Your task to perform on an android device: delete location history Image 0: 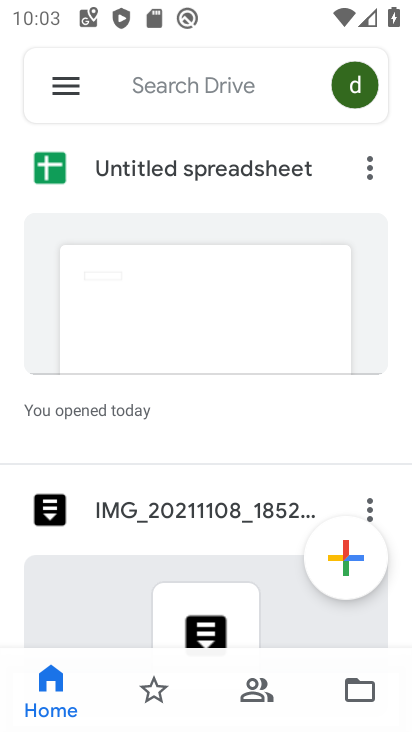
Step 0: press home button
Your task to perform on an android device: delete location history Image 1: 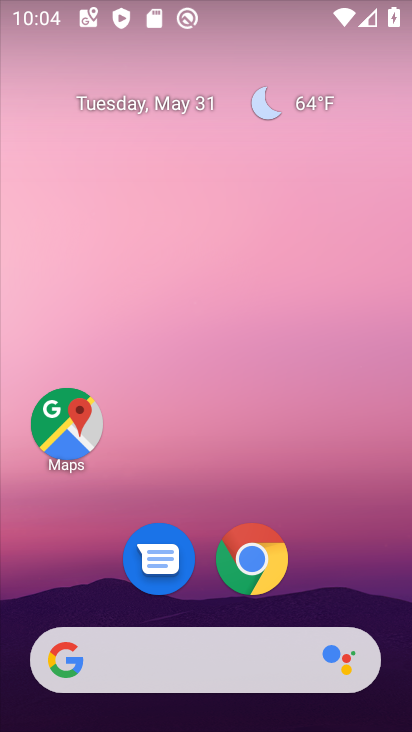
Step 1: drag from (275, 610) to (367, 47)
Your task to perform on an android device: delete location history Image 2: 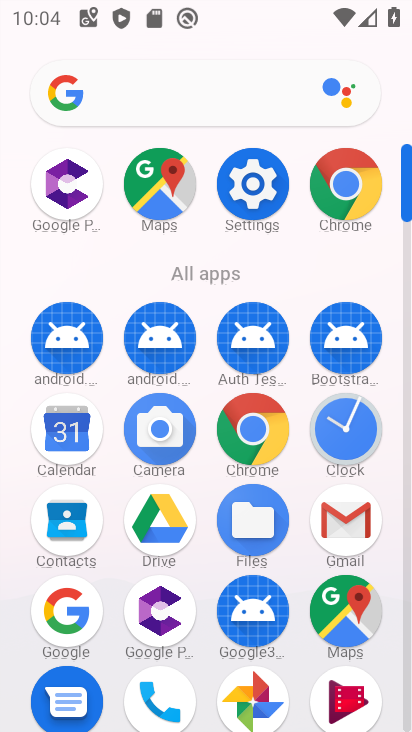
Step 2: drag from (193, 607) to (227, 256)
Your task to perform on an android device: delete location history Image 3: 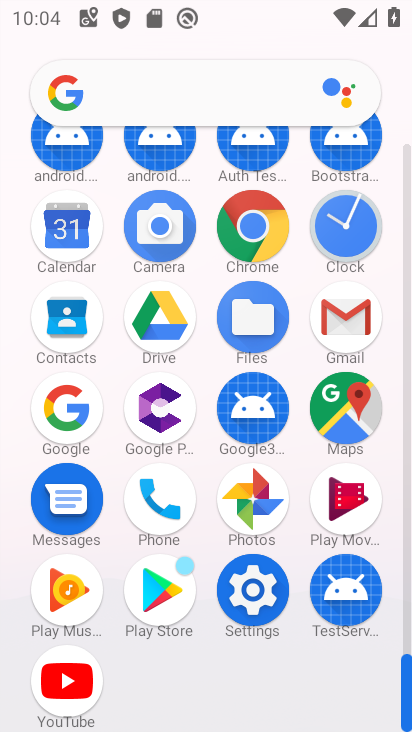
Step 3: click (241, 593)
Your task to perform on an android device: delete location history Image 4: 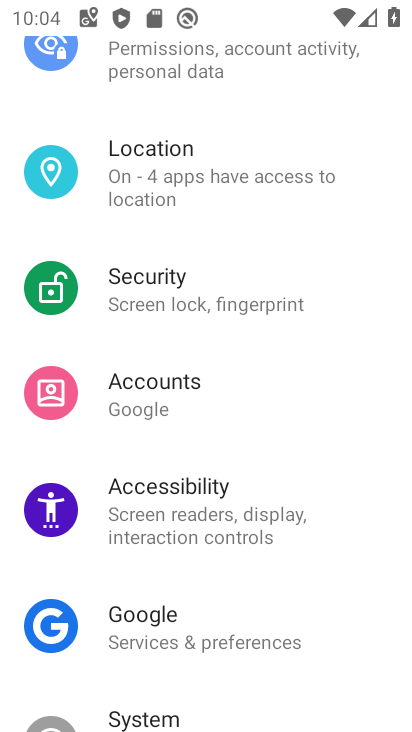
Step 4: click (284, 210)
Your task to perform on an android device: delete location history Image 5: 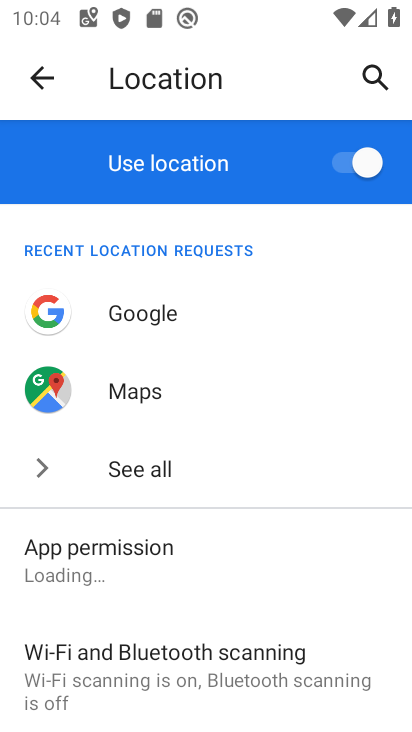
Step 5: drag from (174, 610) to (302, 207)
Your task to perform on an android device: delete location history Image 6: 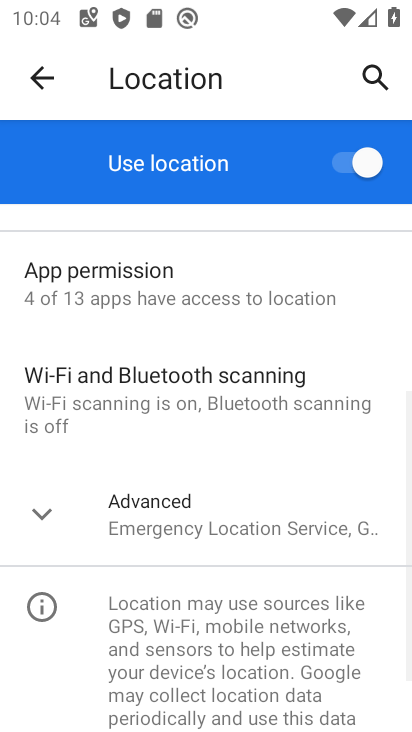
Step 6: click (214, 603)
Your task to perform on an android device: delete location history Image 7: 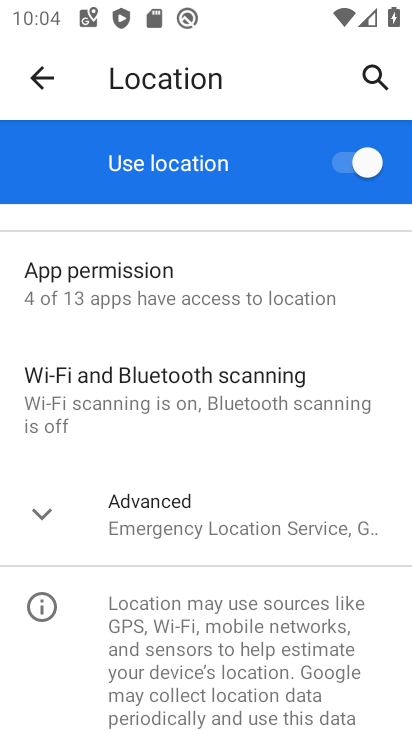
Step 7: click (210, 508)
Your task to perform on an android device: delete location history Image 8: 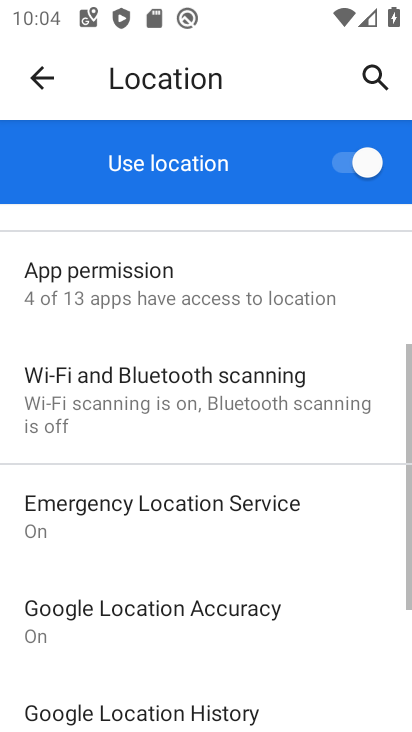
Step 8: drag from (198, 654) to (267, 372)
Your task to perform on an android device: delete location history Image 9: 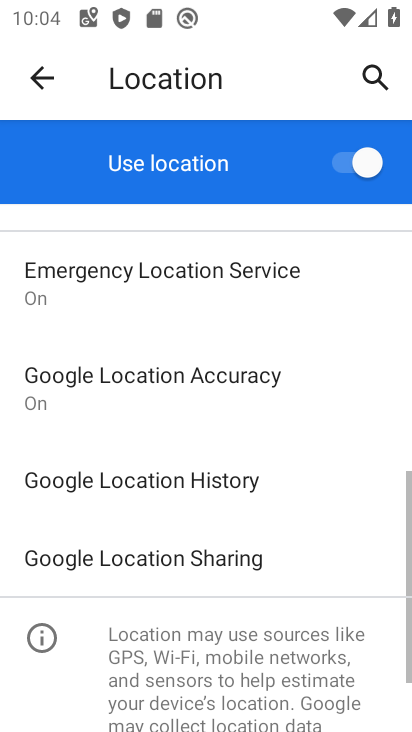
Step 9: click (196, 474)
Your task to perform on an android device: delete location history Image 10: 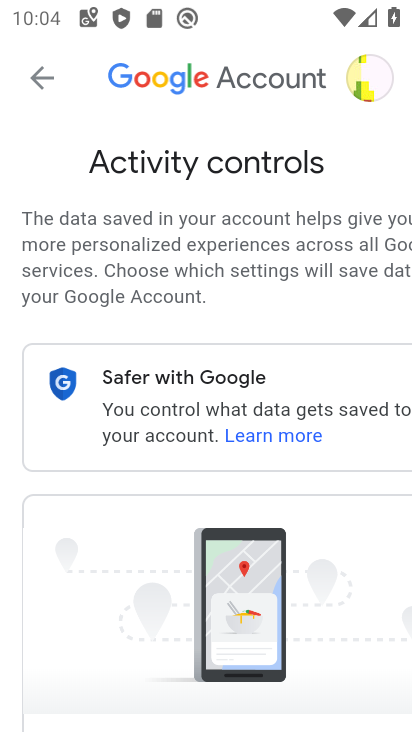
Step 10: drag from (183, 665) to (392, 154)
Your task to perform on an android device: delete location history Image 11: 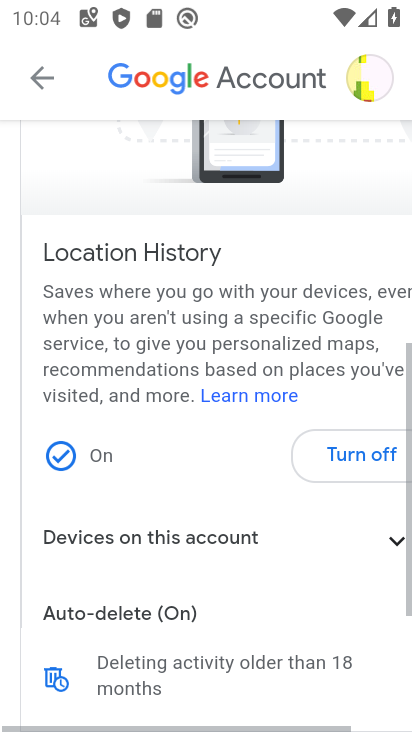
Step 11: drag from (270, 644) to (351, 310)
Your task to perform on an android device: delete location history Image 12: 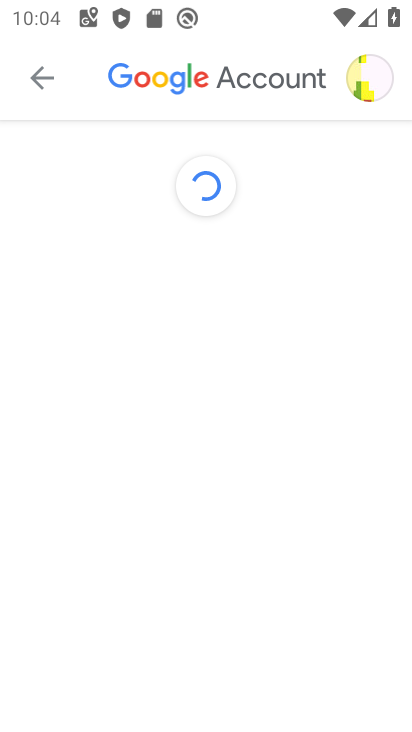
Step 12: drag from (314, 564) to (168, 576)
Your task to perform on an android device: delete location history Image 13: 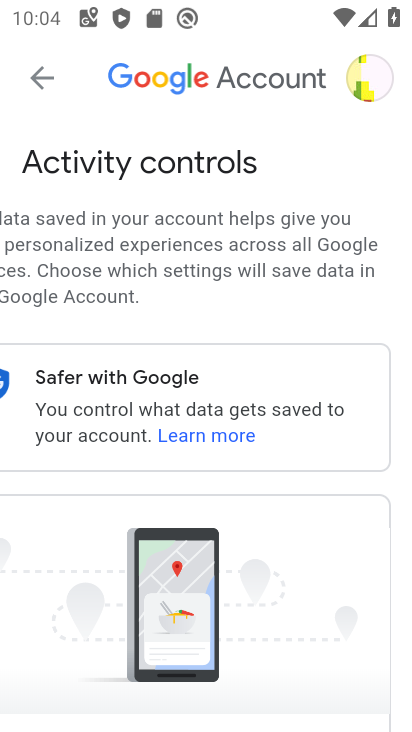
Step 13: drag from (182, 631) to (384, 77)
Your task to perform on an android device: delete location history Image 14: 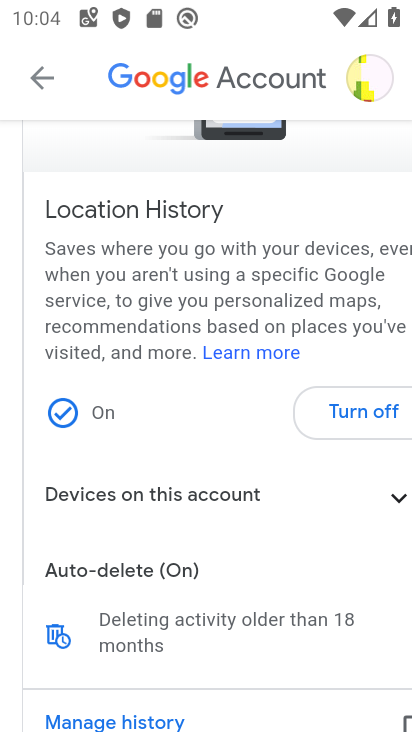
Step 14: drag from (200, 621) to (313, 174)
Your task to perform on an android device: delete location history Image 15: 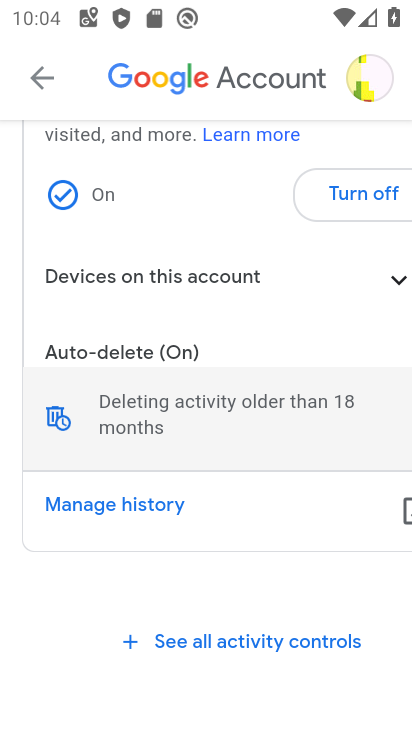
Step 15: click (140, 499)
Your task to perform on an android device: delete location history Image 16: 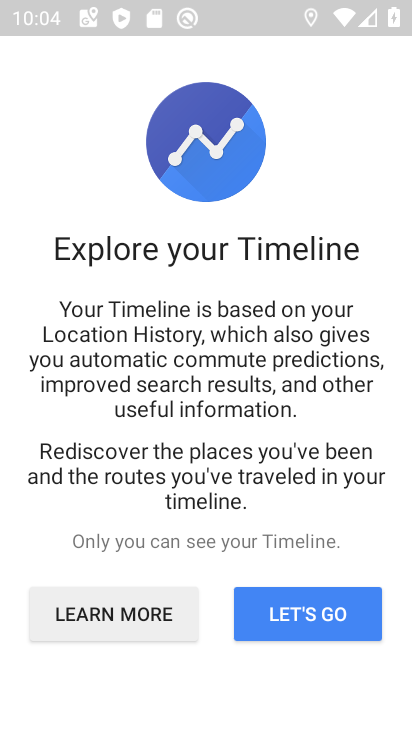
Step 16: click (301, 626)
Your task to perform on an android device: delete location history Image 17: 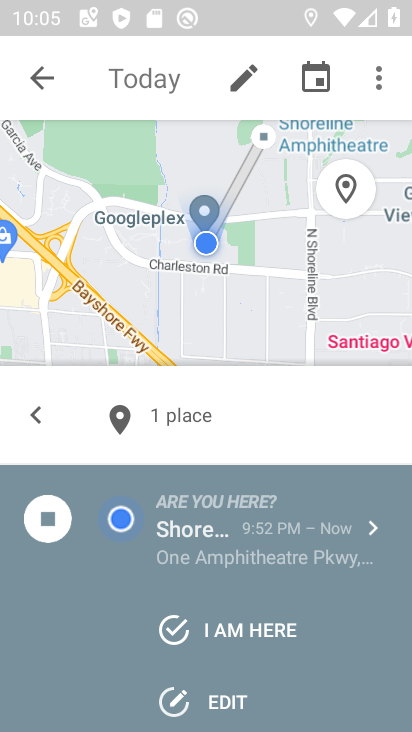
Step 17: click (363, 103)
Your task to perform on an android device: delete location history Image 18: 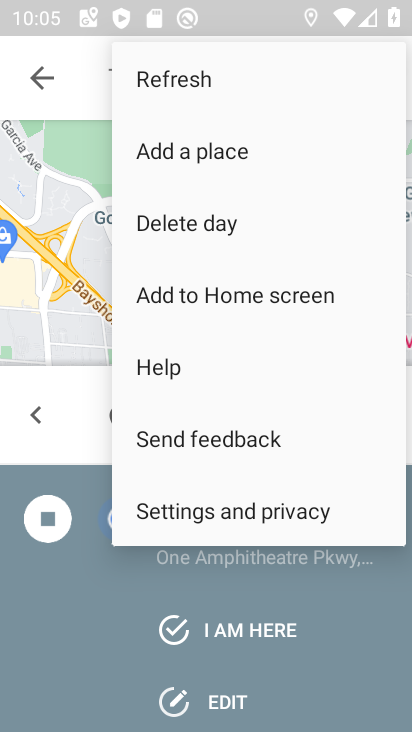
Step 18: click (199, 237)
Your task to perform on an android device: delete location history Image 19: 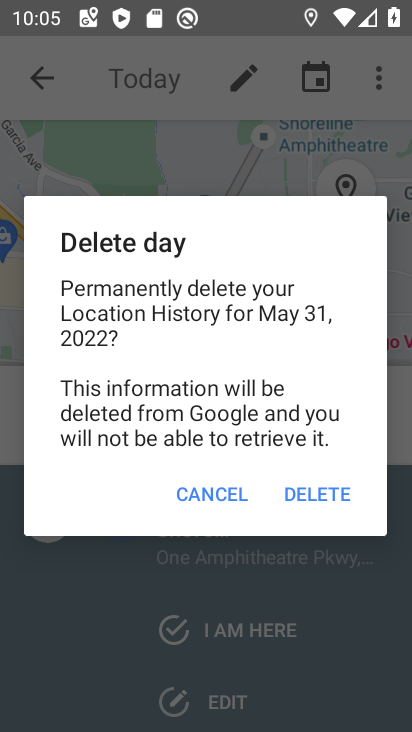
Step 19: click (323, 488)
Your task to perform on an android device: delete location history Image 20: 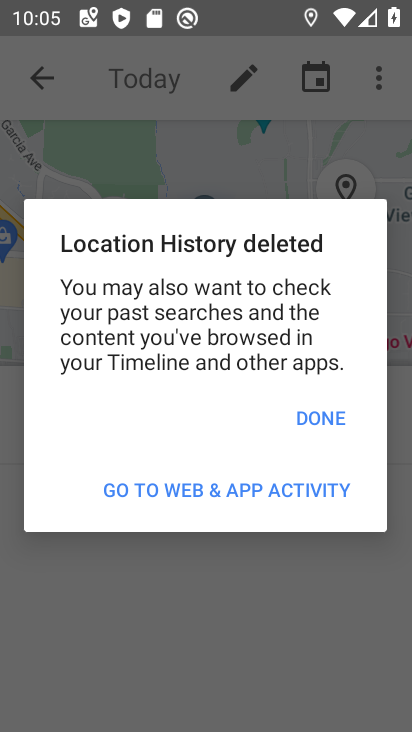
Step 20: click (319, 419)
Your task to perform on an android device: delete location history Image 21: 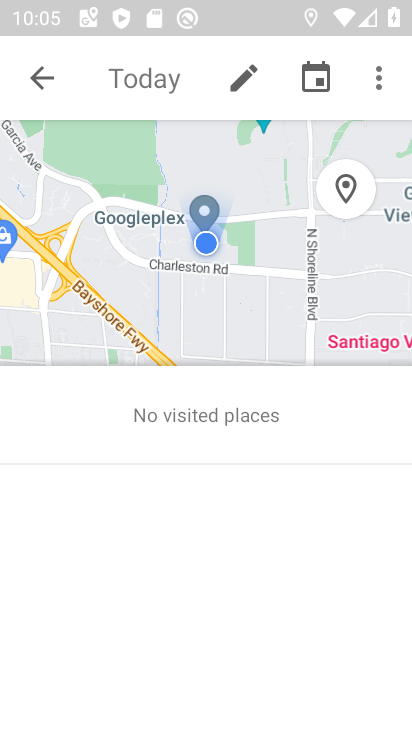
Step 21: task complete